Your task to perform on an android device: What's the weather going to be tomorrow? Image 0: 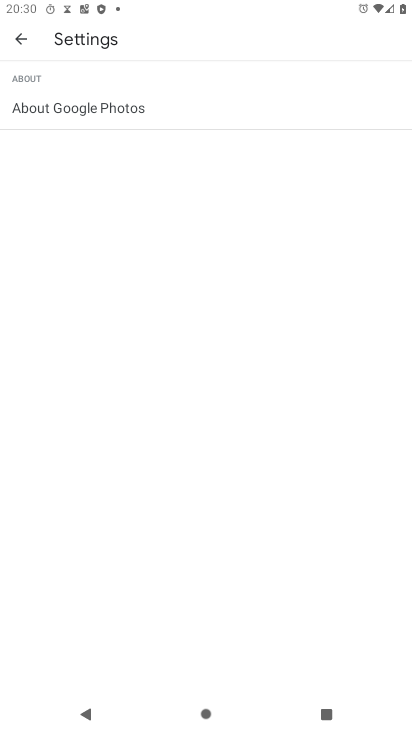
Step 0: press home button
Your task to perform on an android device: What's the weather going to be tomorrow? Image 1: 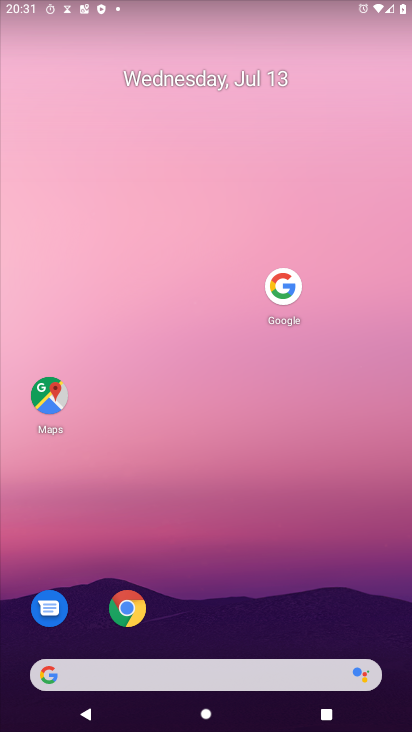
Step 1: click (199, 663)
Your task to perform on an android device: What's the weather going to be tomorrow? Image 2: 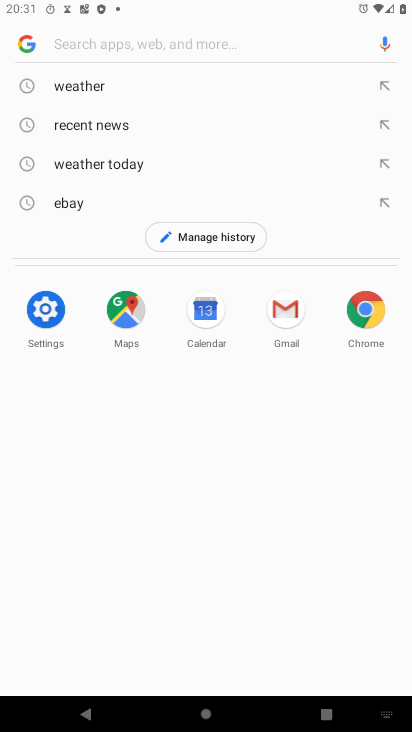
Step 2: click (81, 92)
Your task to perform on an android device: What's the weather going to be tomorrow? Image 3: 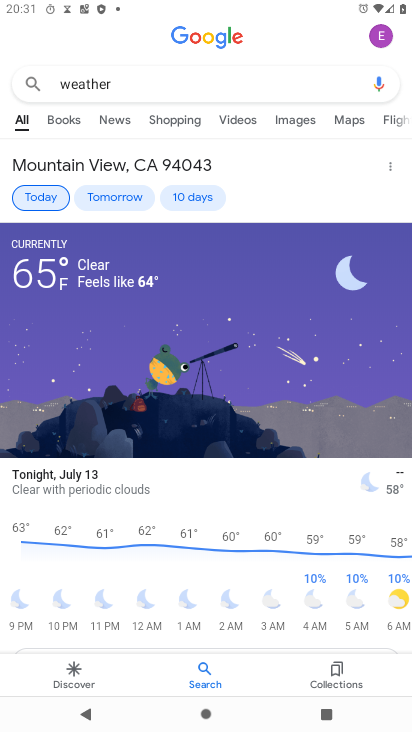
Step 3: click (123, 193)
Your task to perform on an android device: What's the weather going to be tomorrow? Image 4: 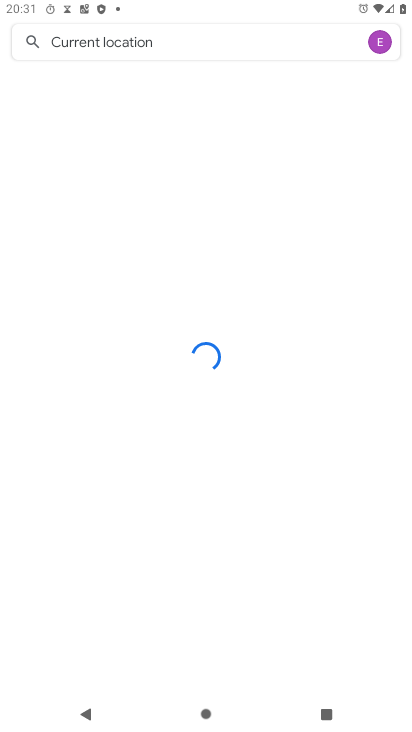
Step 4: task complete